Your task to perform on an android device: Turn off the flashlight Image 0: 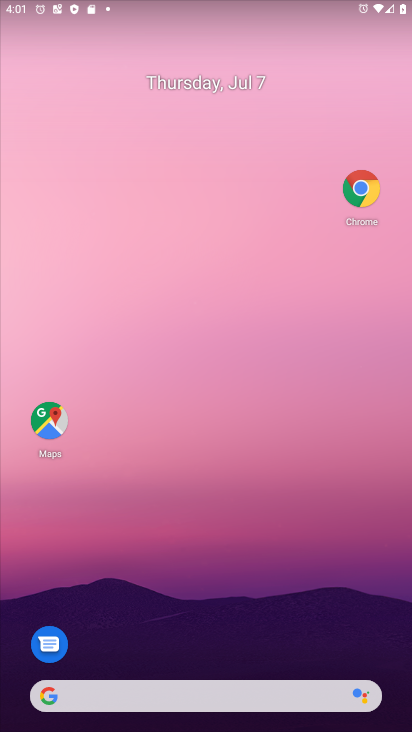
Step 0: press home button
Your task to perform on an android device: Turn off the flashlight Image 1: 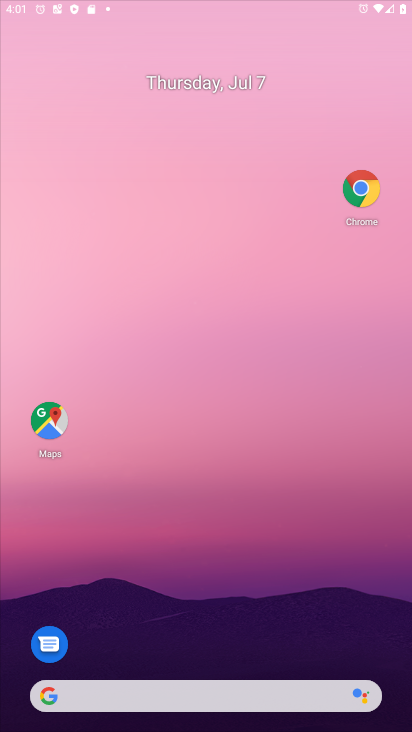
Step 1: task complete